Your task to perform on an android device: Go to ESPN.com Image 0: 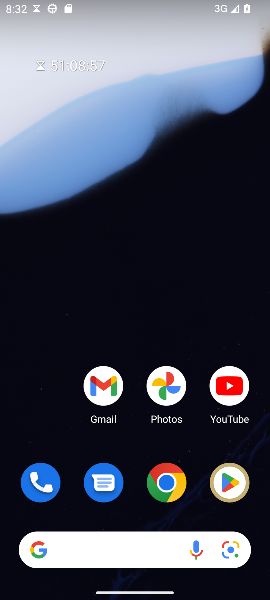
Step 0: drag from (172, 506) to (19, 506)
Your task to perform on an android device: Go to ESPN.com Image 1: 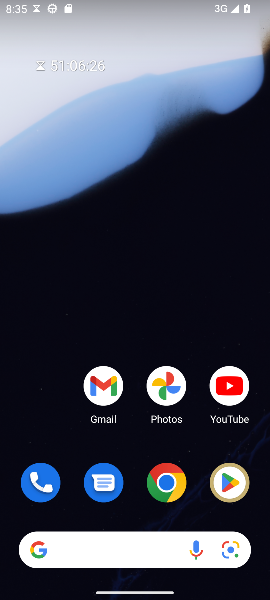
Step 1: drag from (148, 506) to (89, 3)
Your task to perform on an android device: Go to ESPN.com Image 2: 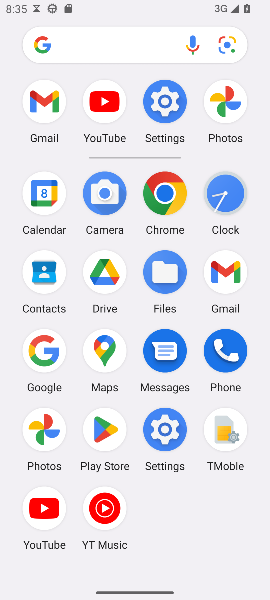
Step 2: click (180, 211)
Your task to perform on an android device: Go to ESPN.com Image 3: 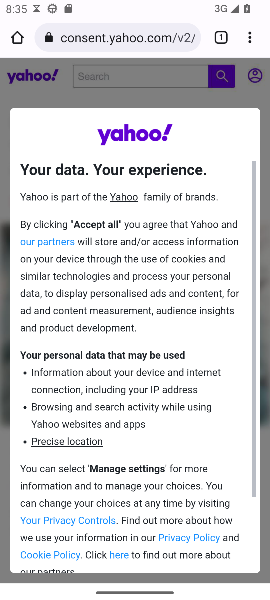
Step 3: click (161, 38)
Your task to perform on an android device: Go to ESPN.com Image 4: 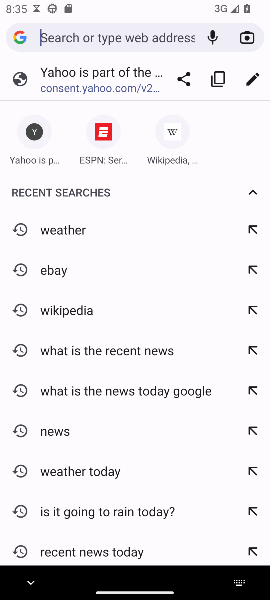
Step 4: type "ESPN.com"
Your task to perform on an android device: Go to ESPN.com Image 5: 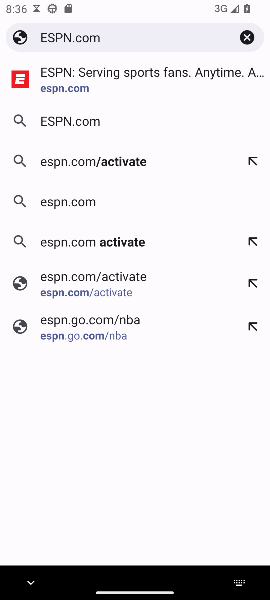
Step 5: click (58, 90)
Your task to perform on an android device: Go to ESPN.com Image 6: 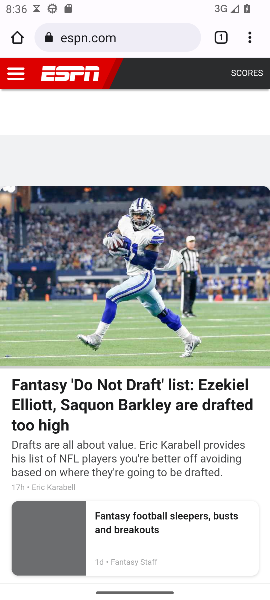
Step 6: task complete